Your task to perform on an android device: Go to internet settings Image 0: 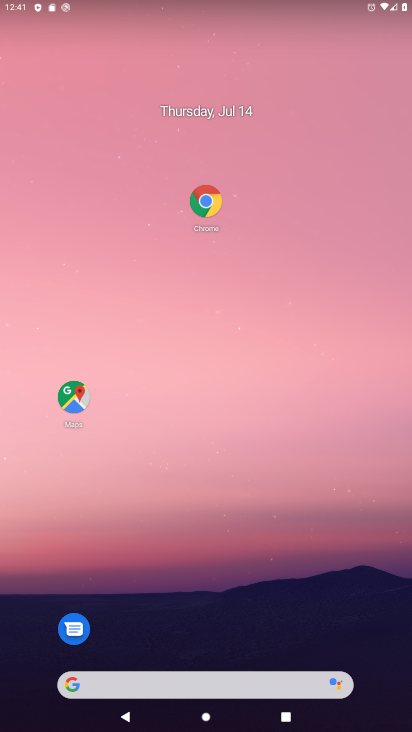
Step 0: drag from (188, 651) to (115, 138)
Your task to perform on an android device: Go to internet settings Image 1: 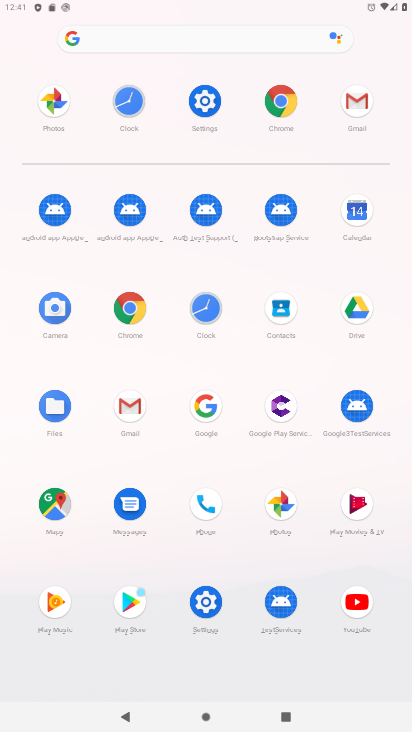
Step 1: click (194, 118)
Your task to perform on an android device: Go to internet settings Image 2: 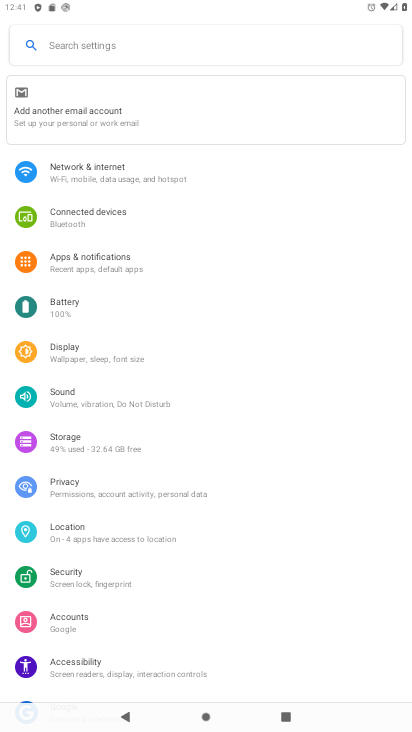
Step 2: click (91, 162)
Your task to perform on an android device: Go to internet settings Image 3: 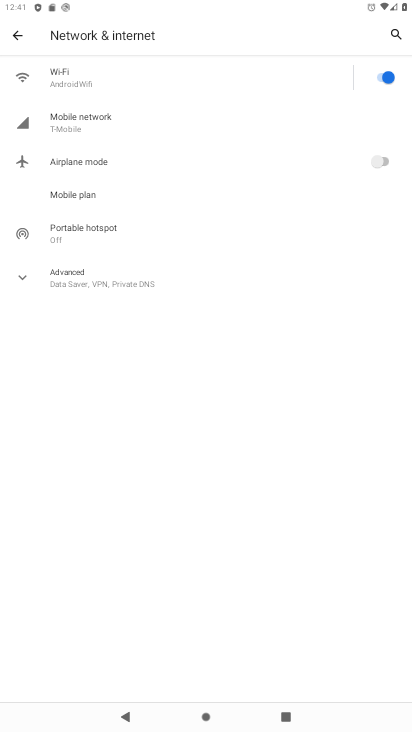
Step 3: click (83, 125)
Your task to perform on an android device: Go to internet settings Image 4: 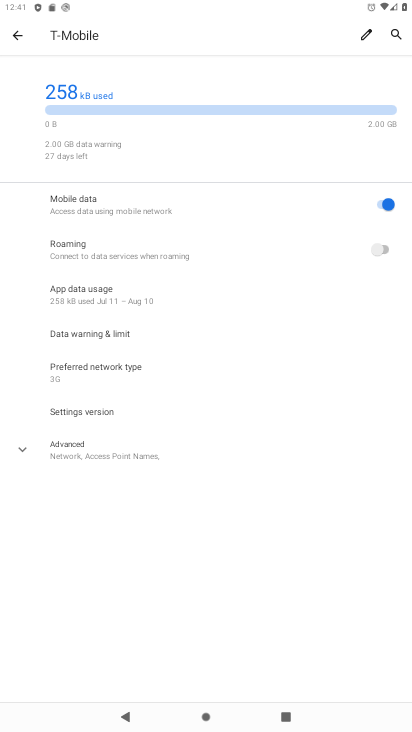
Step 4: task complete